Your task to perform on an android device: What's on my calendar tomorrow? Image 0: 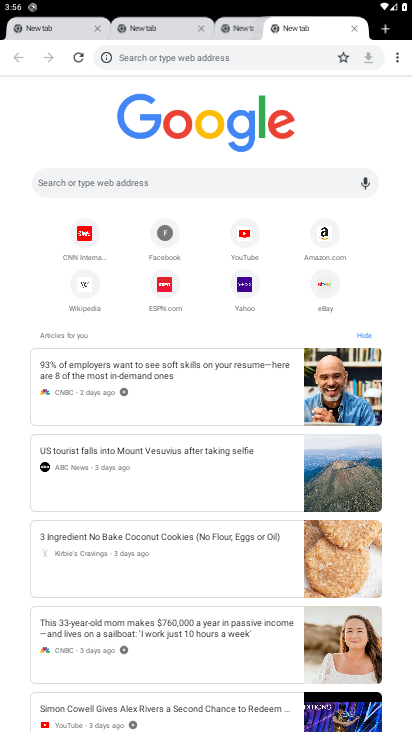
Step 0: click (138, 37)
Your task to perform on an android device: What's on my calendar tomorrow? Image 1: 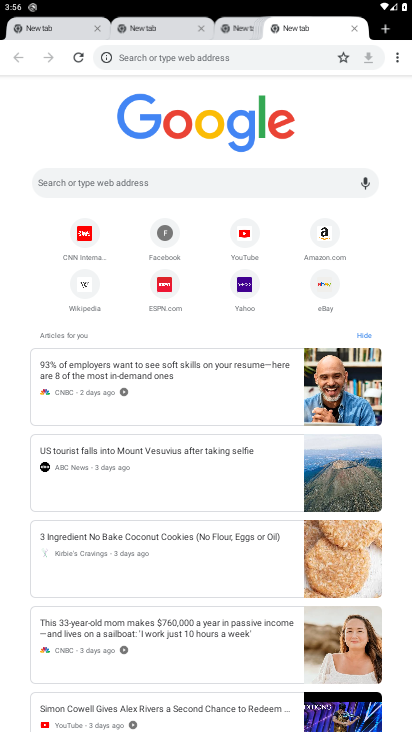
Step 1: click (136, 46)
Your task to perform on an android device: What's on my calendar tomorrow? Image 2: 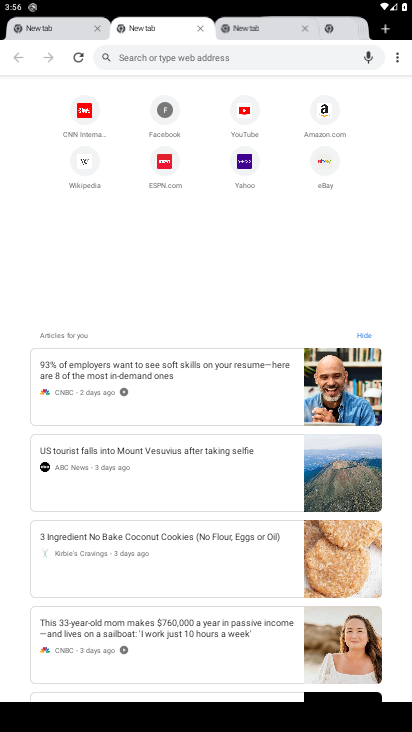
Step 2: type " What's on my calendar tomorrow?"
Your task to perform on an android device: What's on my calendar tomorrow? Image 3: 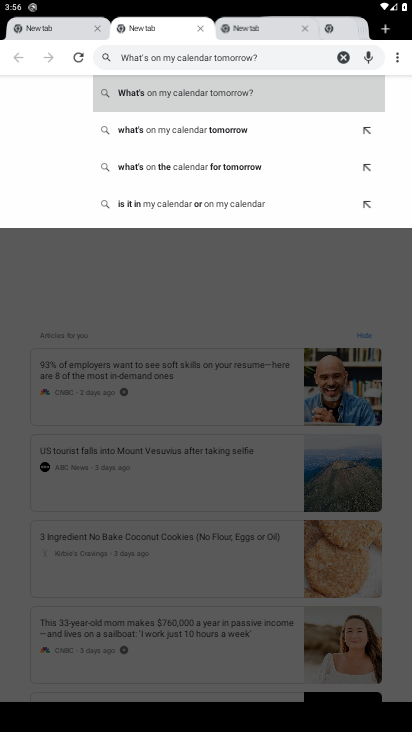
Step 3: click (294, 89)
Your task to perform on an android device: What's on my calendar tomorrow? Image 4: 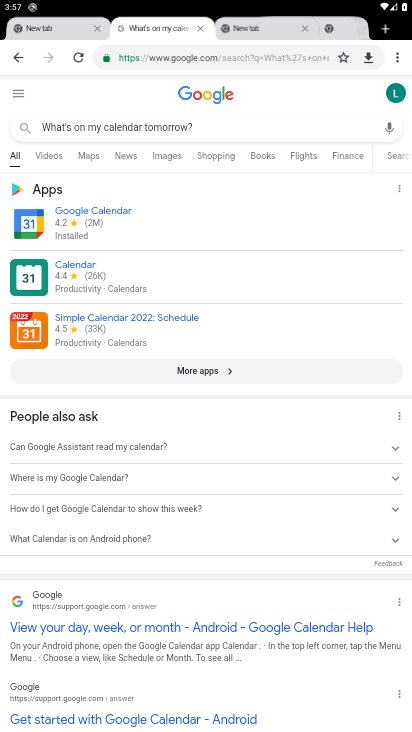
Step 4: task complete